Your task to perform on an android device: Do I have any events tomorrow? Image 0: 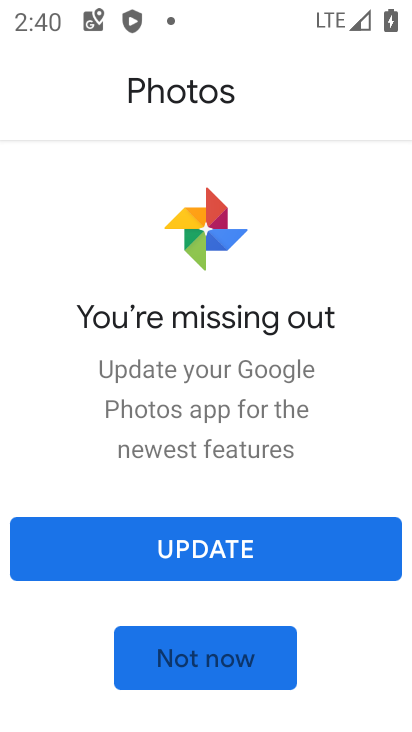
Step 0: press home button
Your task to perform on an android device: Do I have any events tomorrow? Image 1: 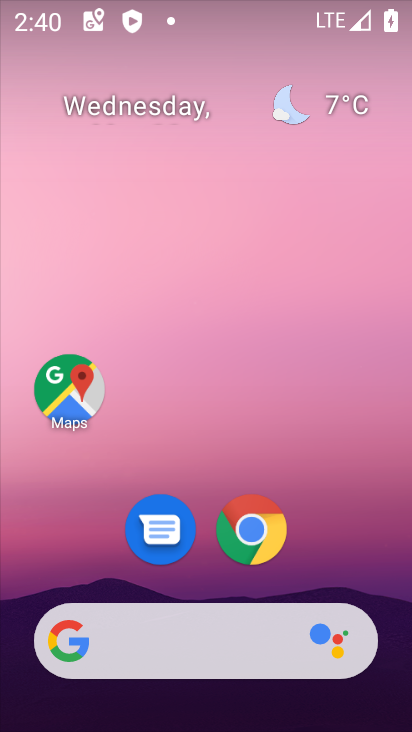
Step 1: drag from (360, 438) to (358, 135)
Your task to perform on an android device: Do I have any events tomorrow? Image 2: 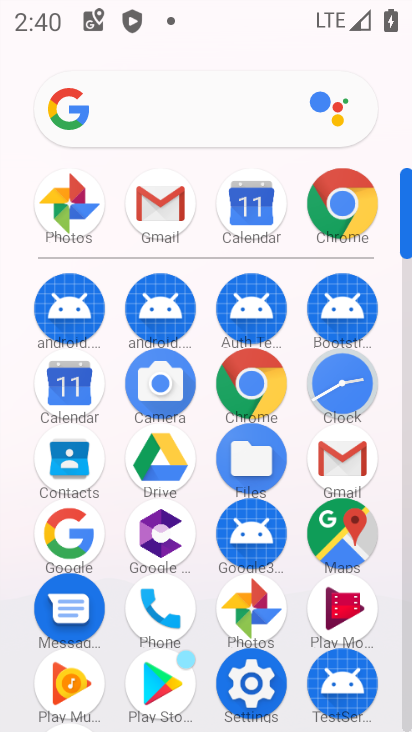
Step 2: click (59, 392)
Your task to perform on an android device: Do I have any events tomorrow? Image 3: 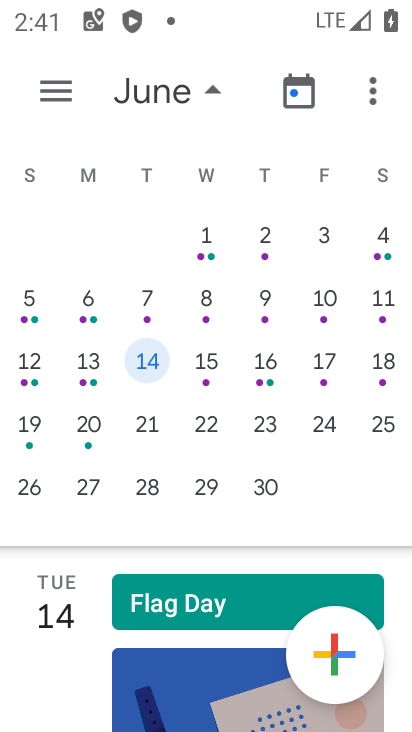
Step 3: click (208, 370)
Your task to perform on an android device: Do I have any events tomorrow? Image 4: 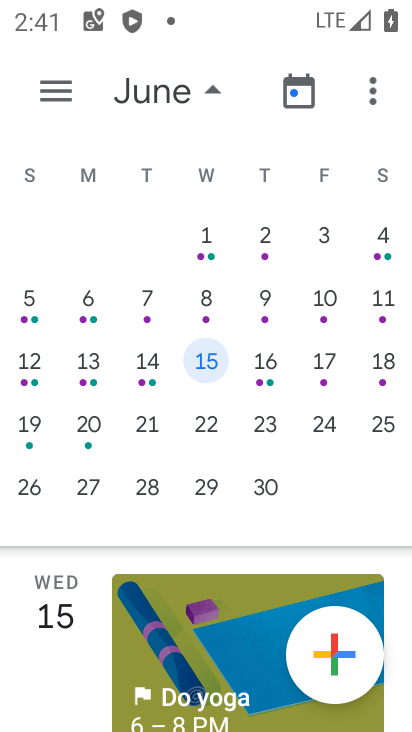
Step 4: task complete